Your task to perform on an android device: toggle airplane mode Image 0: 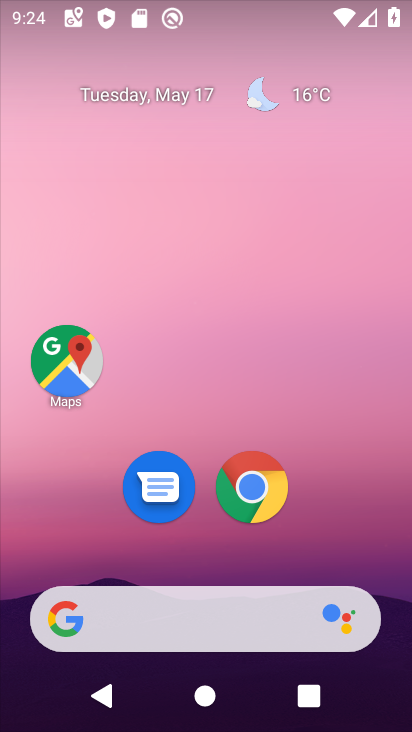
Step 0: drag from (235, 529) to (266, 3)
Your task to perform on an android device: toggle airplane mode Image 1: 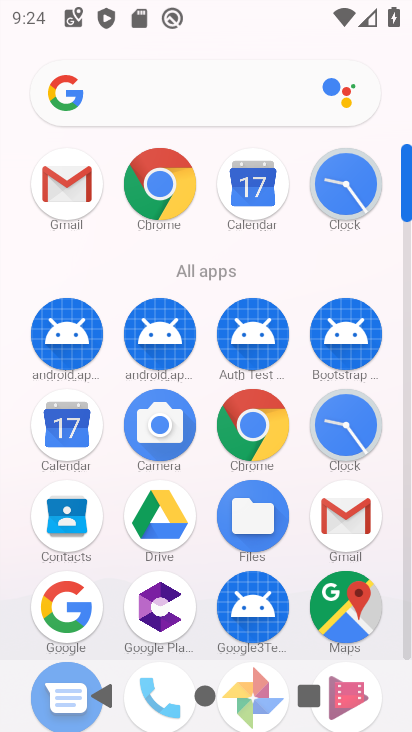
Step 1: drag from (213, 608) to (221, 251)
Your task to perform on an android device: toggle airplane mode Image 2: 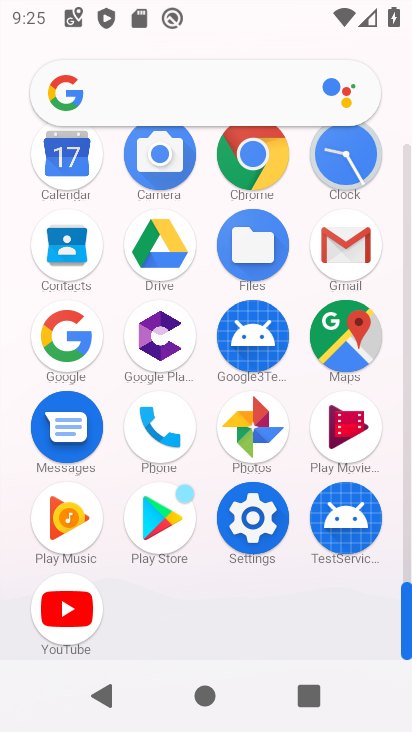
Step 2: click (260, 537)
Your task to perform on an android device: toggle airplane mode Image 3: 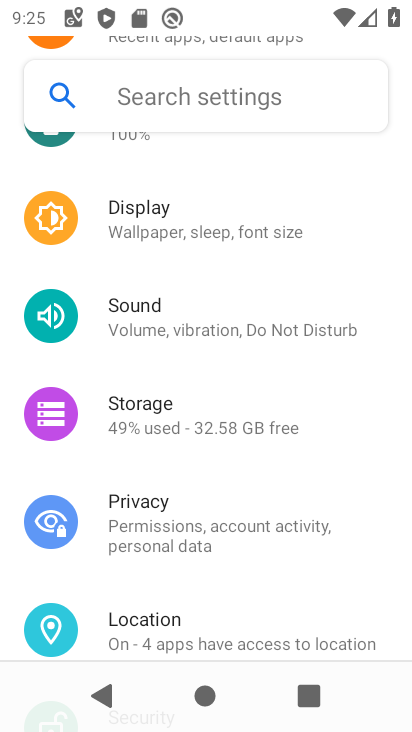
Step 3: drag from (202, 258) to (176, 645)
Your task to perform on an android device: toggle airplane mode Image 4: 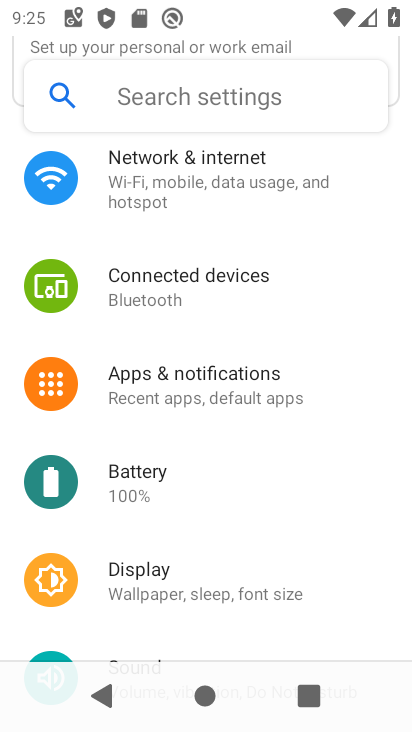
Step 4: click (228, 198)
Your task to perform on an android device: toggle airplane mode Image 5: 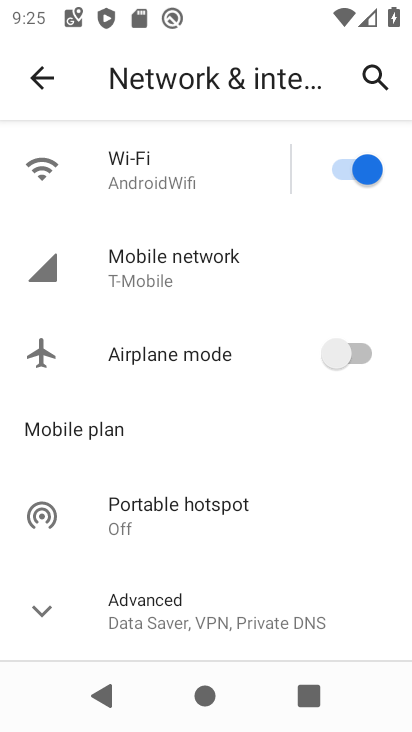
Step 5: click (362, 350)
Your task to perform on an android device: toggle airplane mode Image 6: 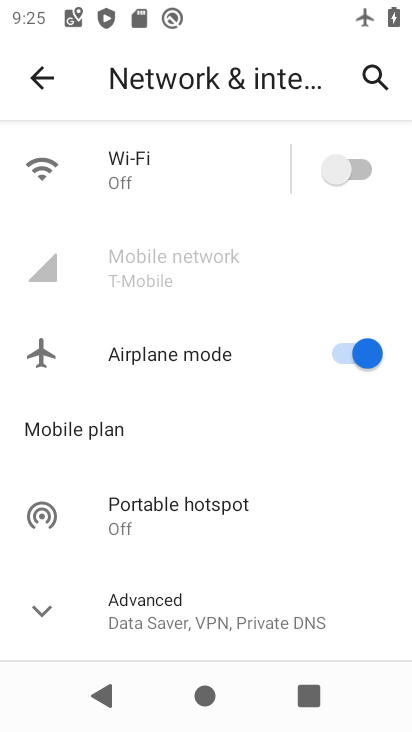
Step 6: task complete